Your task to perform on an android device: Open internet settings Image 0: 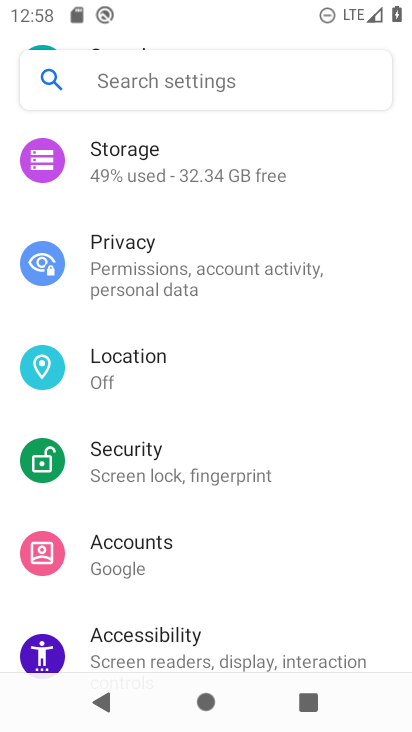
Step 0: drag from (131, 260) to (150, 357)
Your task to perform on an android device: Open internet settings Image 1: 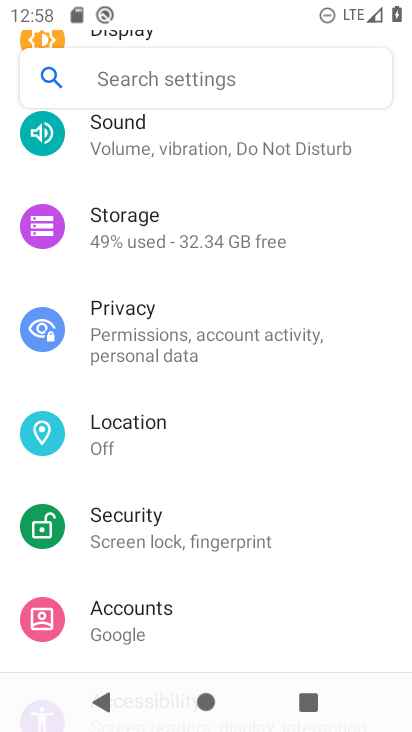
Step 1: drag from (179, 201) to (230, 321)
Your task to perform on an android device: Open internet settings Image 2: 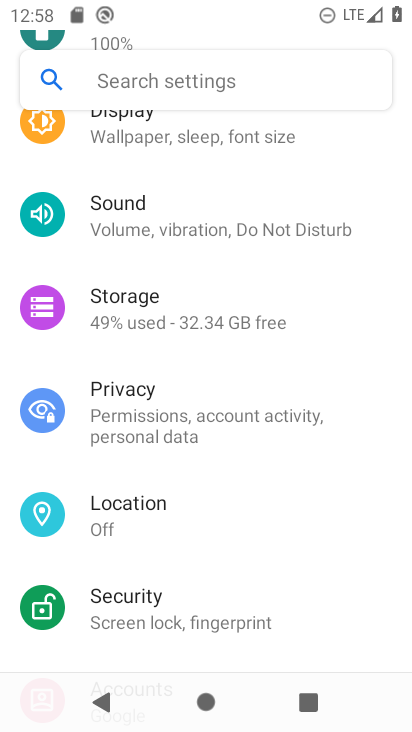
Step 2: drag from (212, 170) to (308, 350)
Your task to perform on an android device: Open internet settings Image 3: 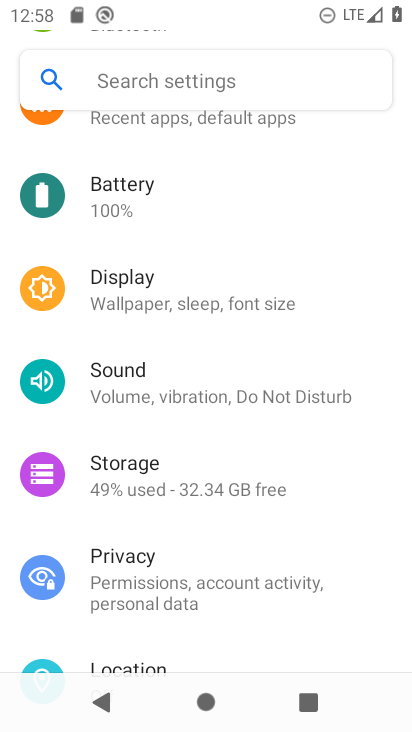
Step 3: drag from (238, 199) to (242, 418)
Your task to perform on an android device: Open internet settings Image 4: 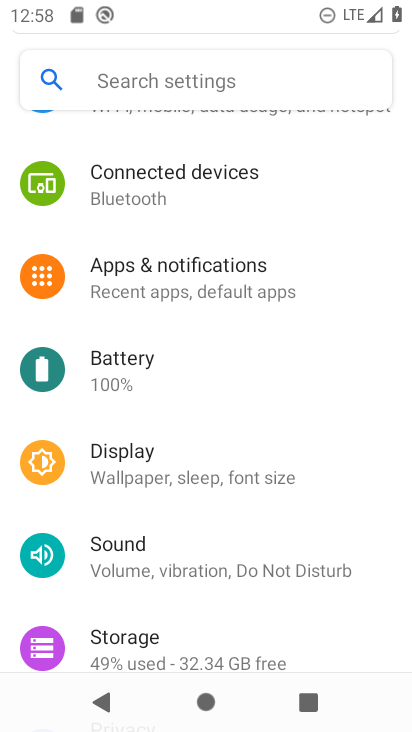
Step 4: drag from (235, 207) to (308, 360)
Your task to perform on an android device: Open internet settings Image 5: 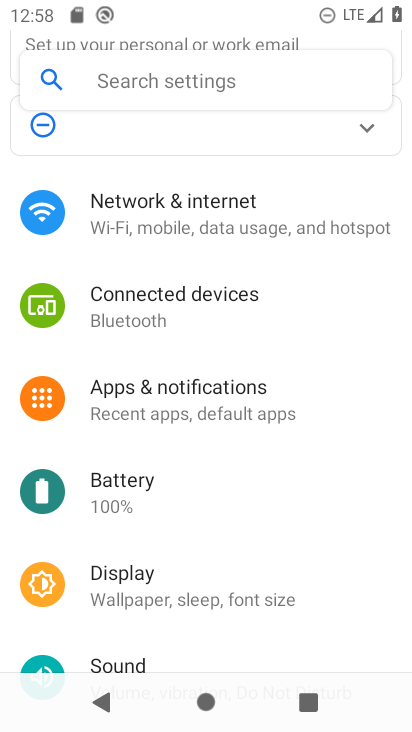
Step 5: click (212, 223)
Your task to perform on an android device: Open internet settings Image 6: 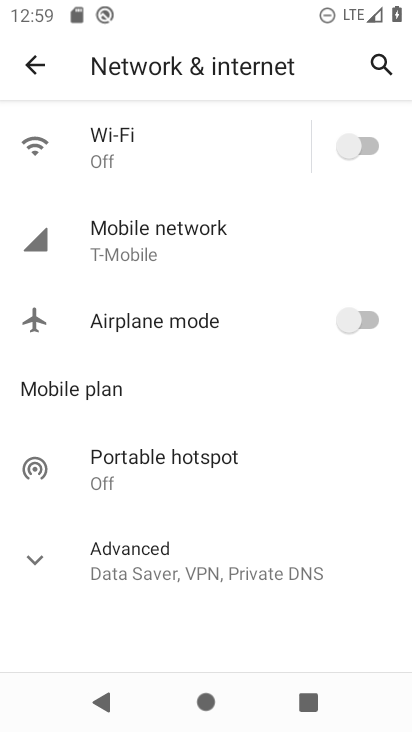
Step 6: click (109, 159)
Your task to perform on an android device: Open internet settings Image 7: 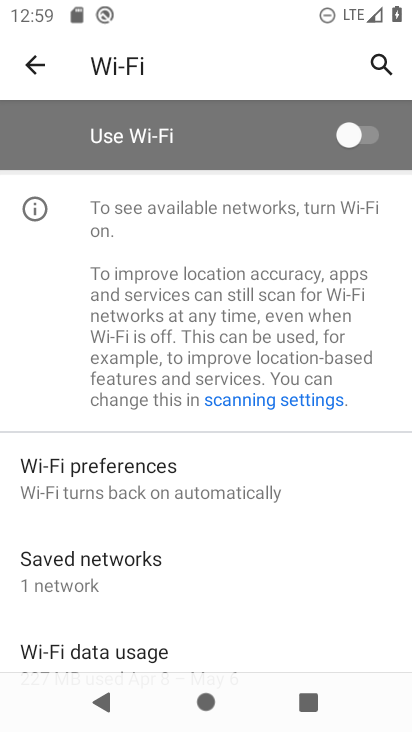
Step 7: task complete